Your task to perform on an android device: read, delete, or share a saved page in the chrome app Image 0: 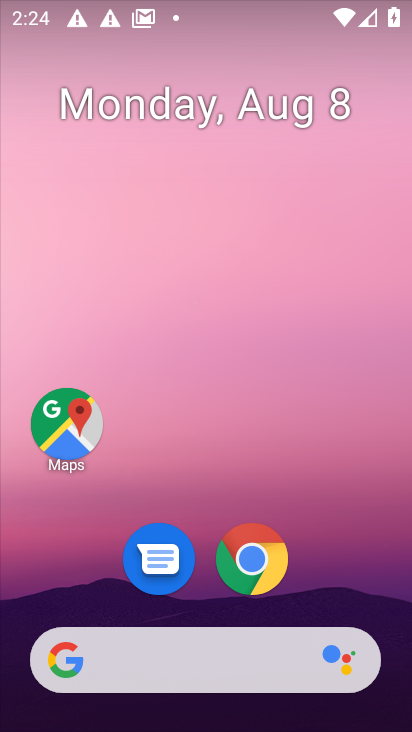
Step 0: click (248, 560)
Your task to perform on an android device: read, delete, or share a saved page in the chrome app Image 1: 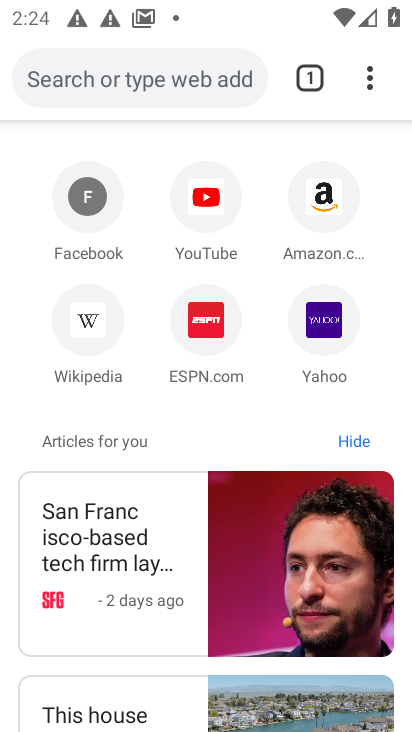
Step 1: click (369, 80)
Your task to perform on an android device: read, delete, or share a saved page in the chrome app Image 2: 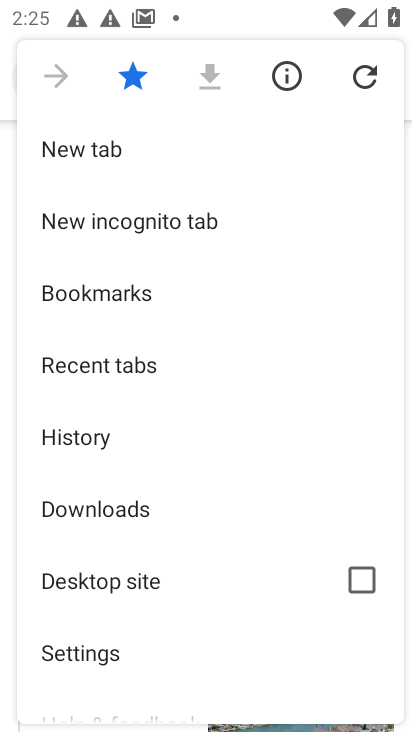
Step 2: click (119, 508)
Your task to perform on an android device: read, delete, or share a saved page in the chrome app Image 3: 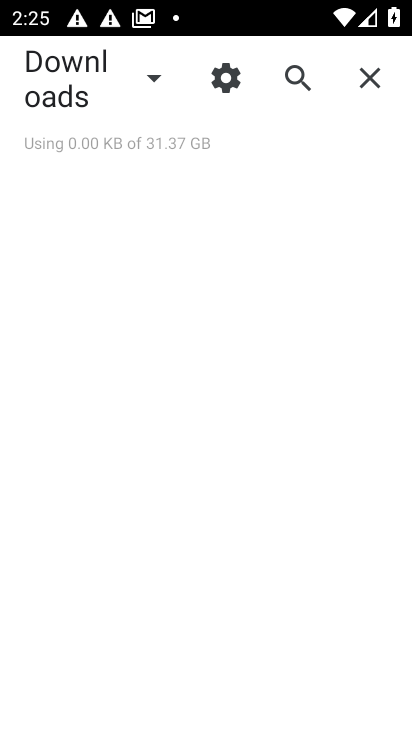
Step 3: click (157, 80)
Your task to perform on an android device: read, delete, or share a saved page in the chrome app Image 4: 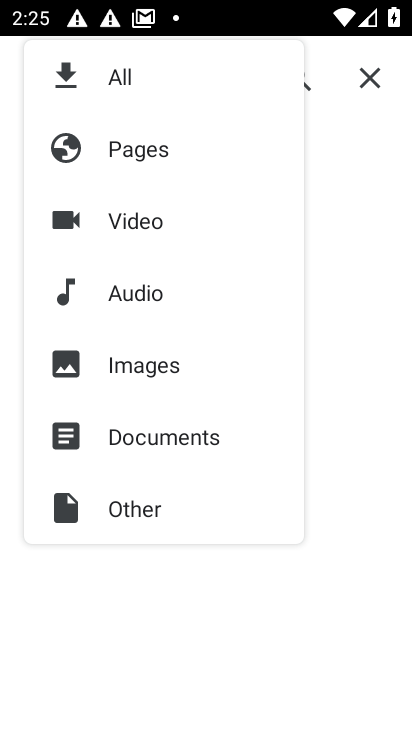
Step 4: click (160, 160)
Your task to perform on an android device: read, delete, or share a saved page in the chrome app Image 5: 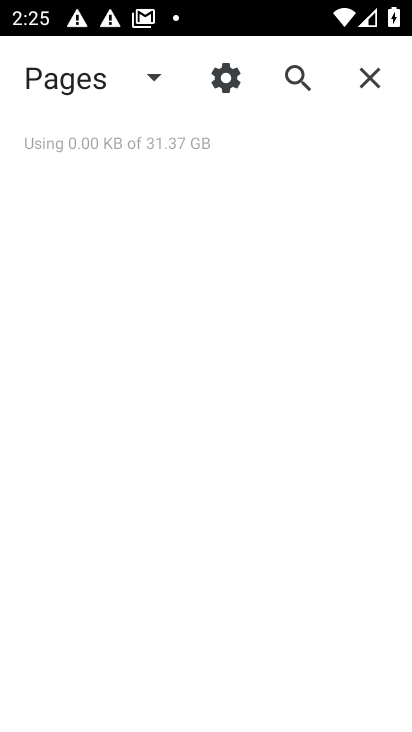
Step 5: click (156, 75)
Your task to perform on an android device: read, delete, or share a saved page in the chrome app Image 6: 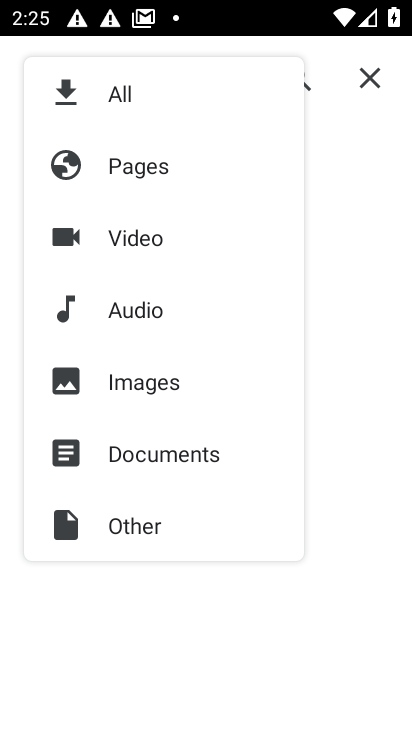
Step 6: click (145, 313)
Your task to perform on an android device: read, delete, or share a saved page in the chrome app Image 7: 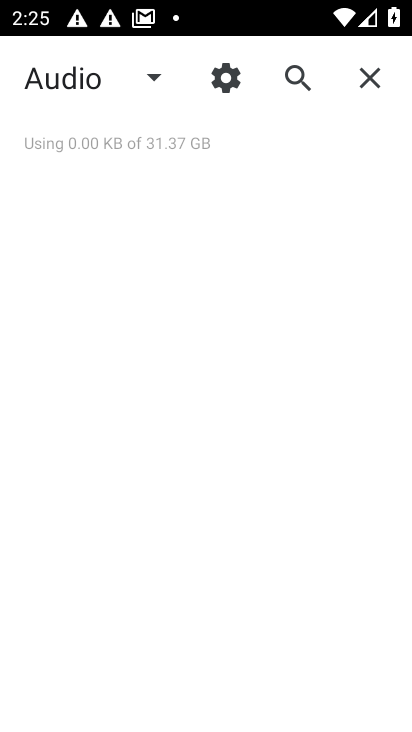
Step 7: click (148, 71)
Your task to perform on an android device: read, delete, or share a saved page in the chrome app Image 8: 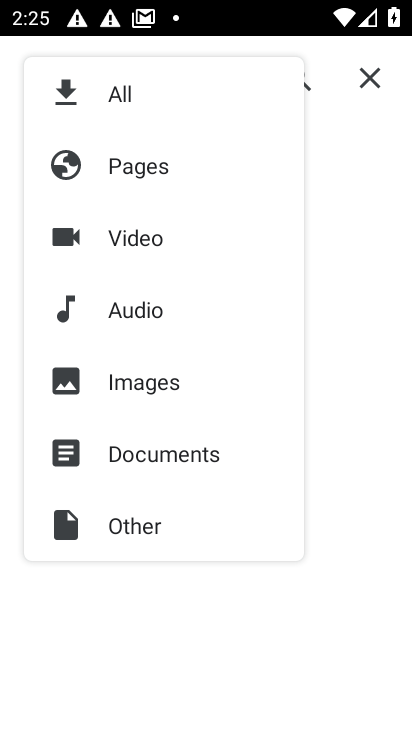
Step 8: click (120, 379)
Your task to perform on an android device: read, delete, or share a saved page in the chrome app Image 9: 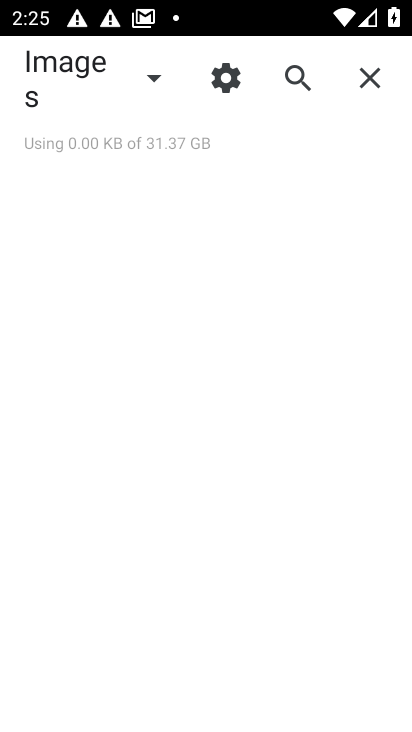
Step 9: click (161, 72)
Your task to perform on an android device: read, delete, or share a saved page in the chrome app Image 10: 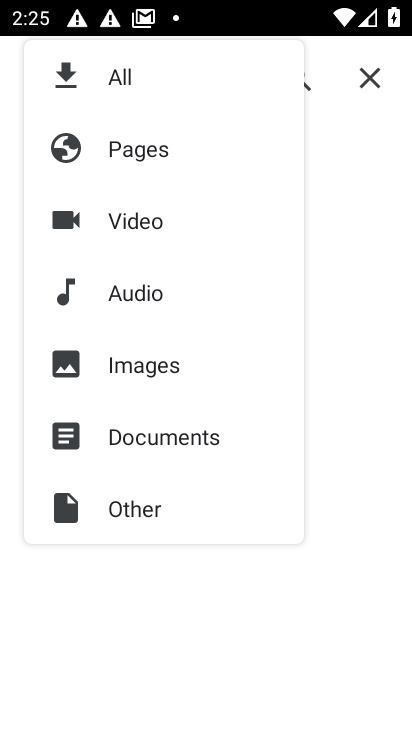
Step 10: click (144, 449)
Your task to perform on an android device: read, delete, or share a saved page in the chrome app Image 11: 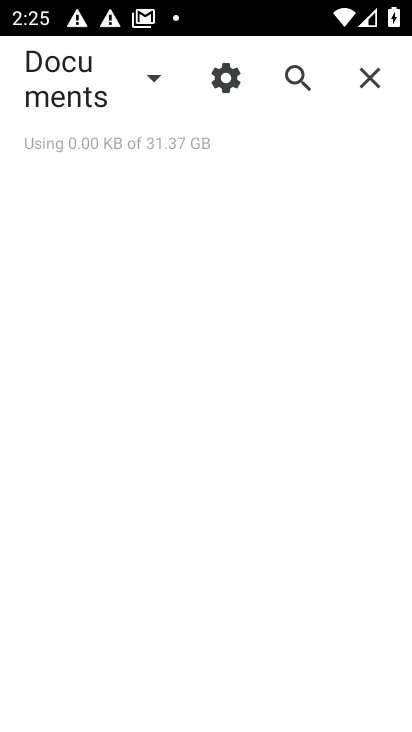
Step 11: click (150, 78)
Your task to perform on an android device: read, delete, or share a saved page in the chrome app Image 12: 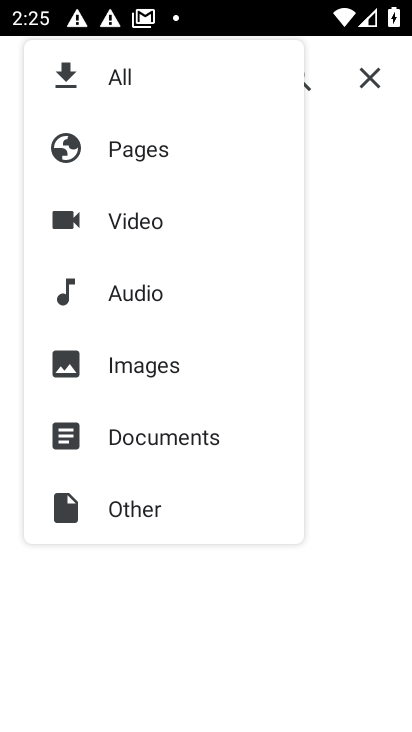
Step 12: click (137, 513)
Your task to perform on an android device: read, delete, or share a saved page in the chrome app Image 13: 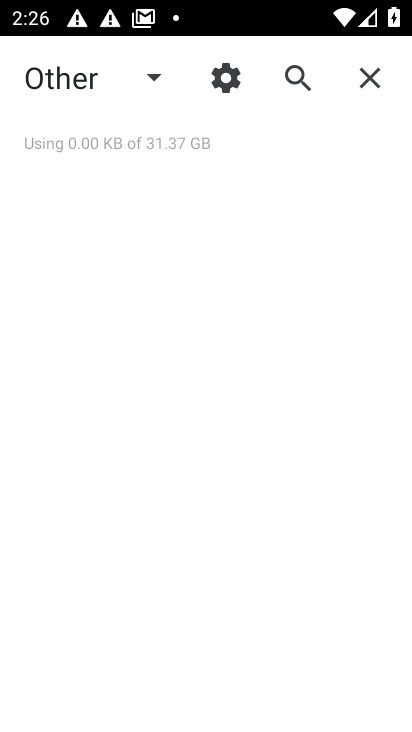
Step 13: task complete